Your task to perform on an android device: Go to display settings Image 0: 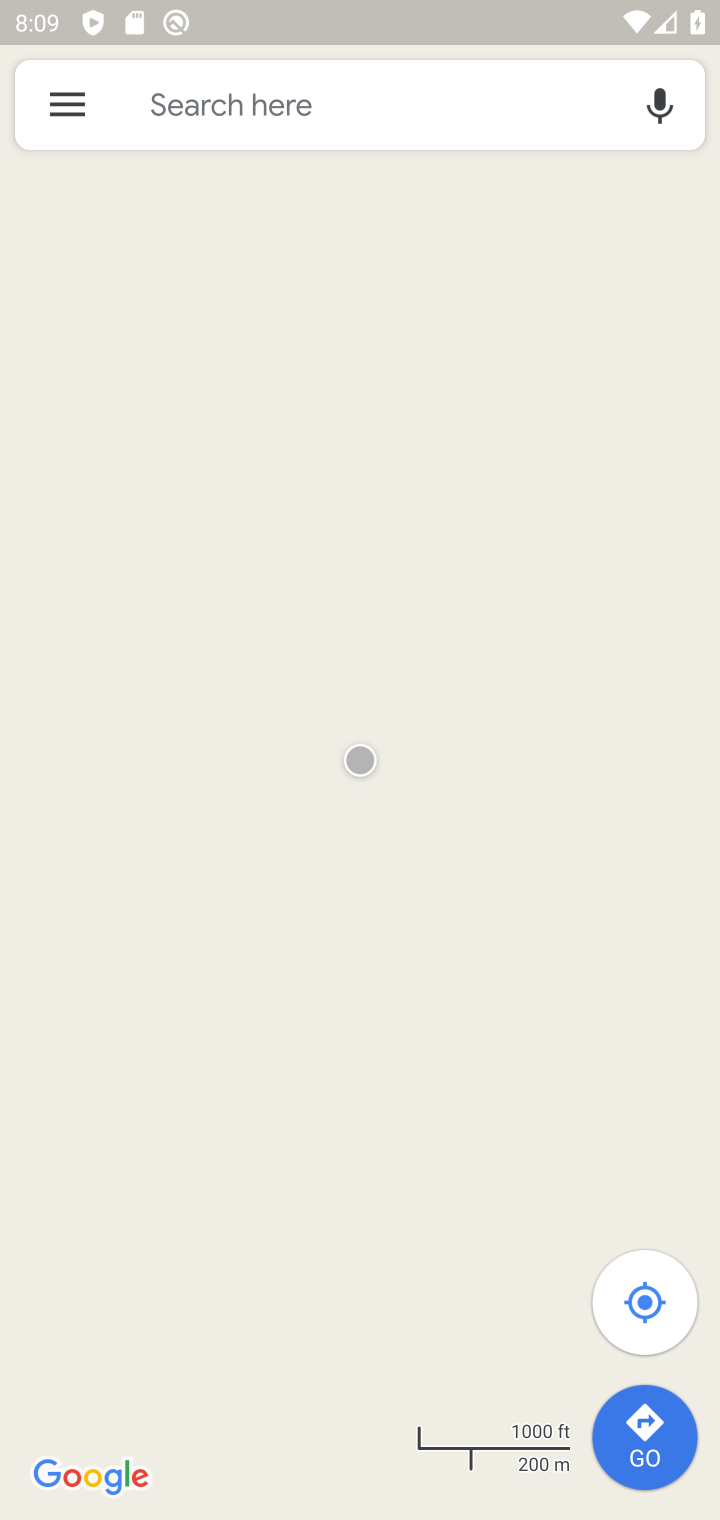
Step 0: press home button
Your task to perform on an android device: Go to display settings Image 1: 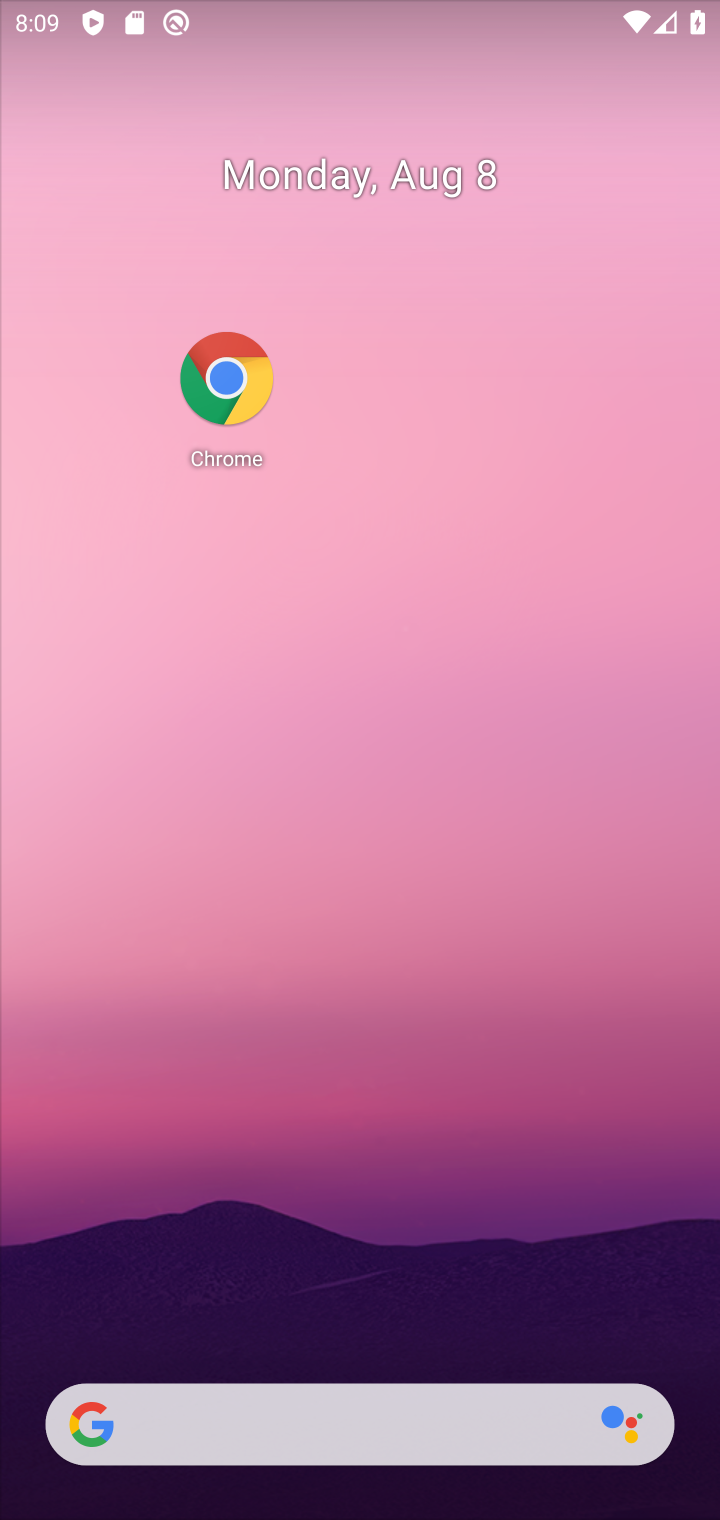
Step 1: drag from (310, 1033) to (126, 4)
Your task to perform on an android device: Go to display settings Image 2: 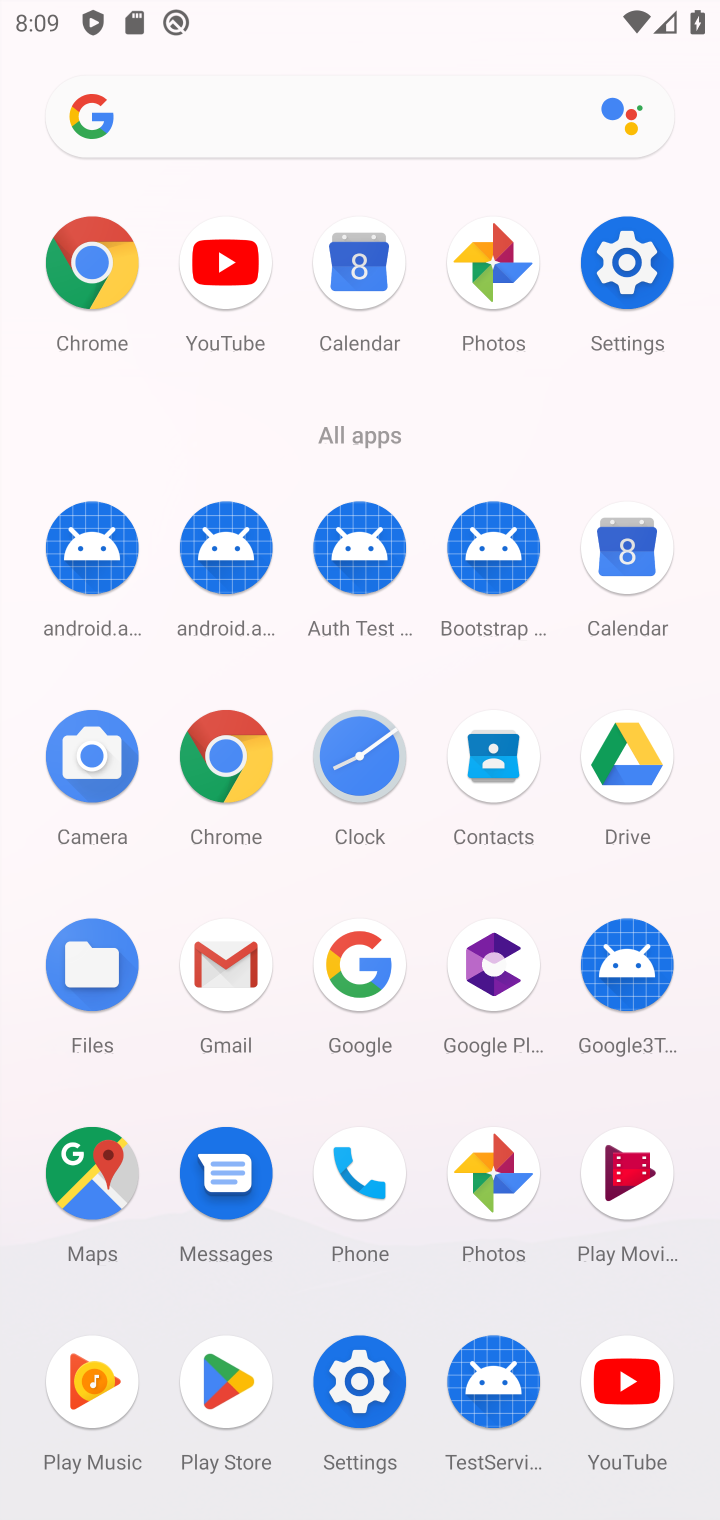
Step 2: click (632, 274)
Your task to perform on an android device: Go to display settings Image 3: 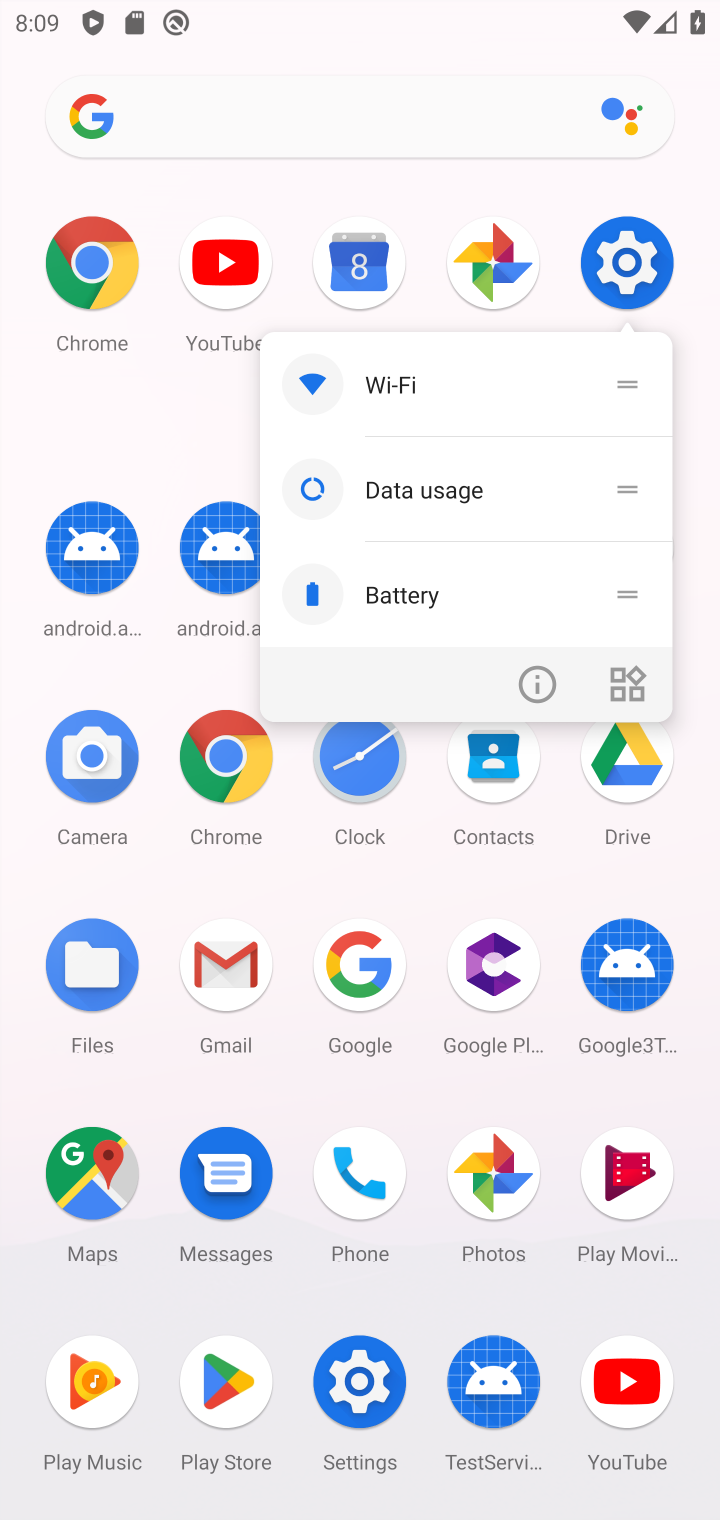
Step 3: click (632, 274)
Your task to perform on an android device: Go to display settings Image 4: 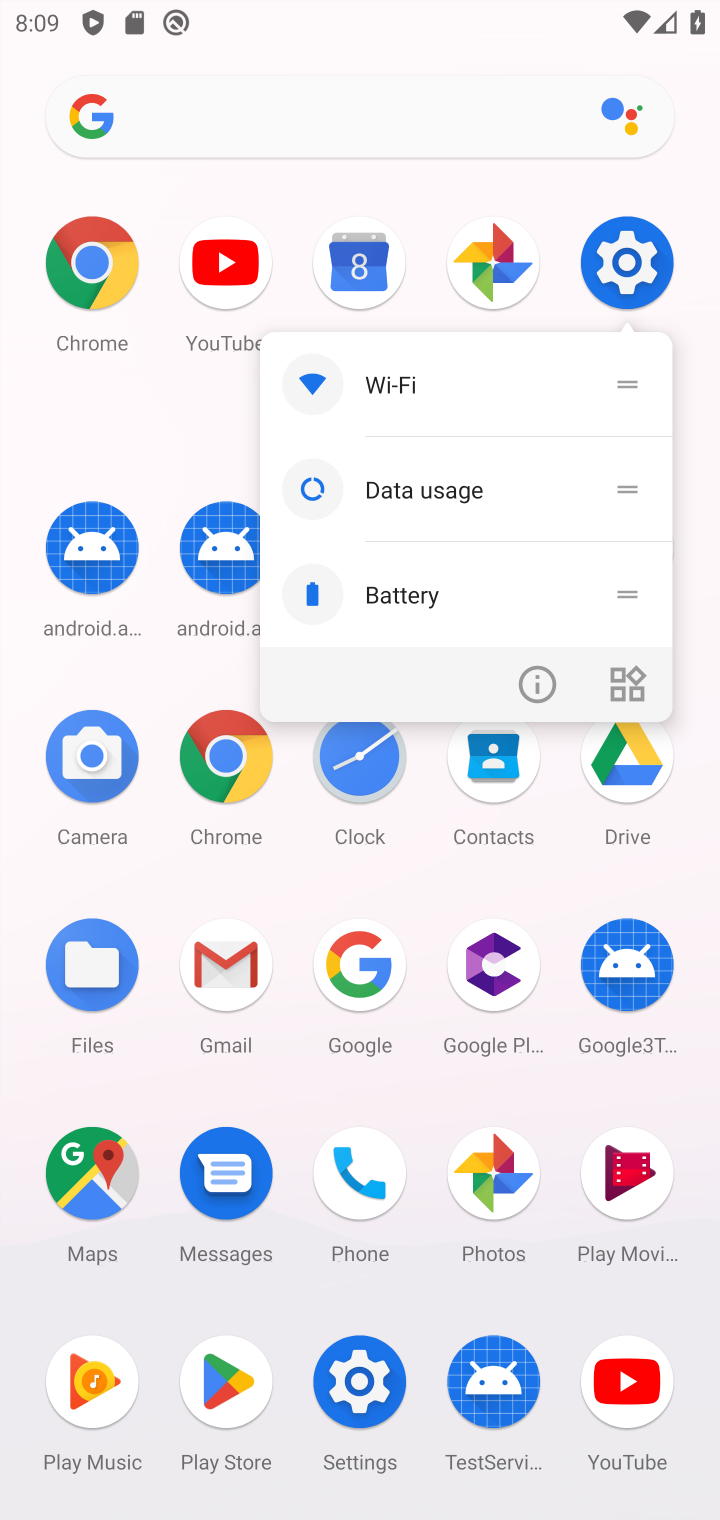
Step 4: click (630, 268)
Your task to perform on an android device: Go to display settings Image 5: 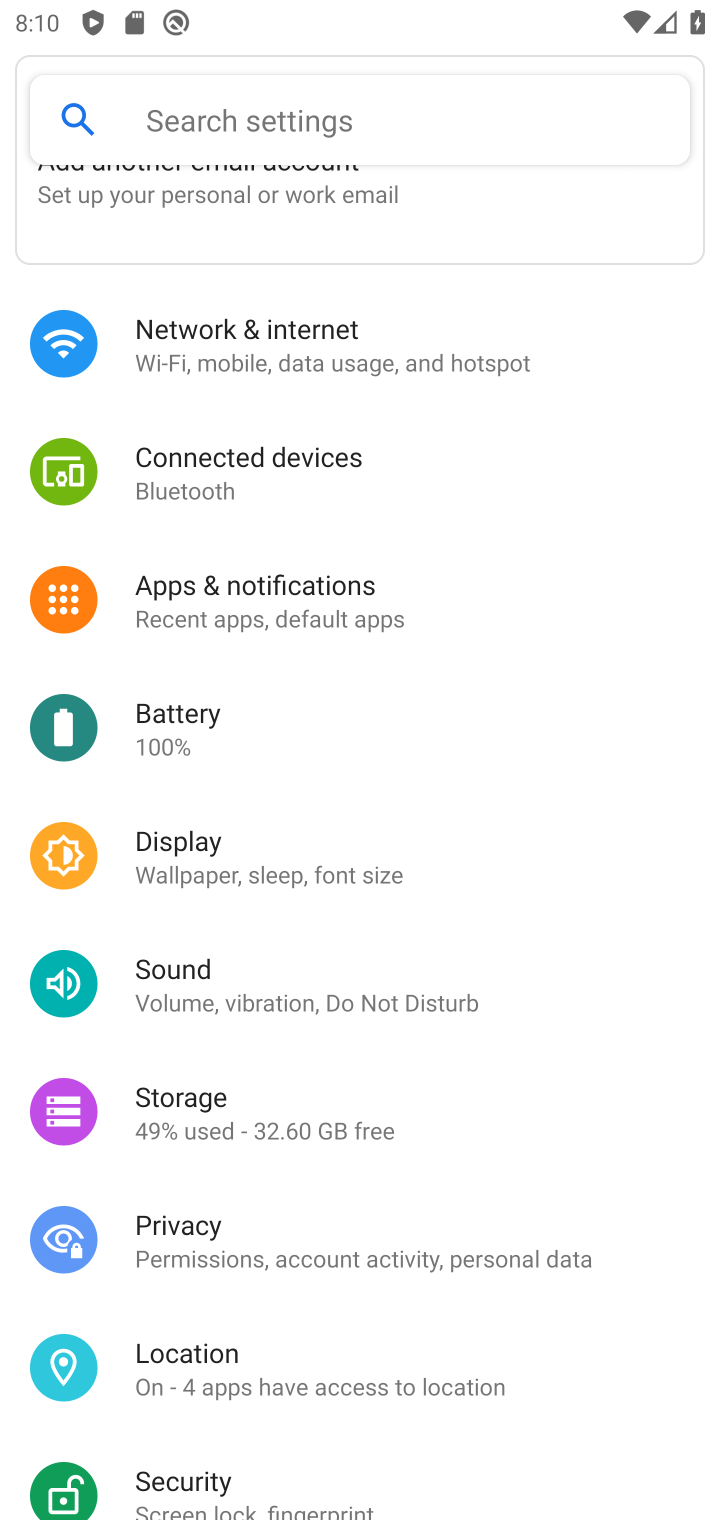
Step 5: click (293, 858)
Your task to perform on an android device: Go to display settings Image 6: 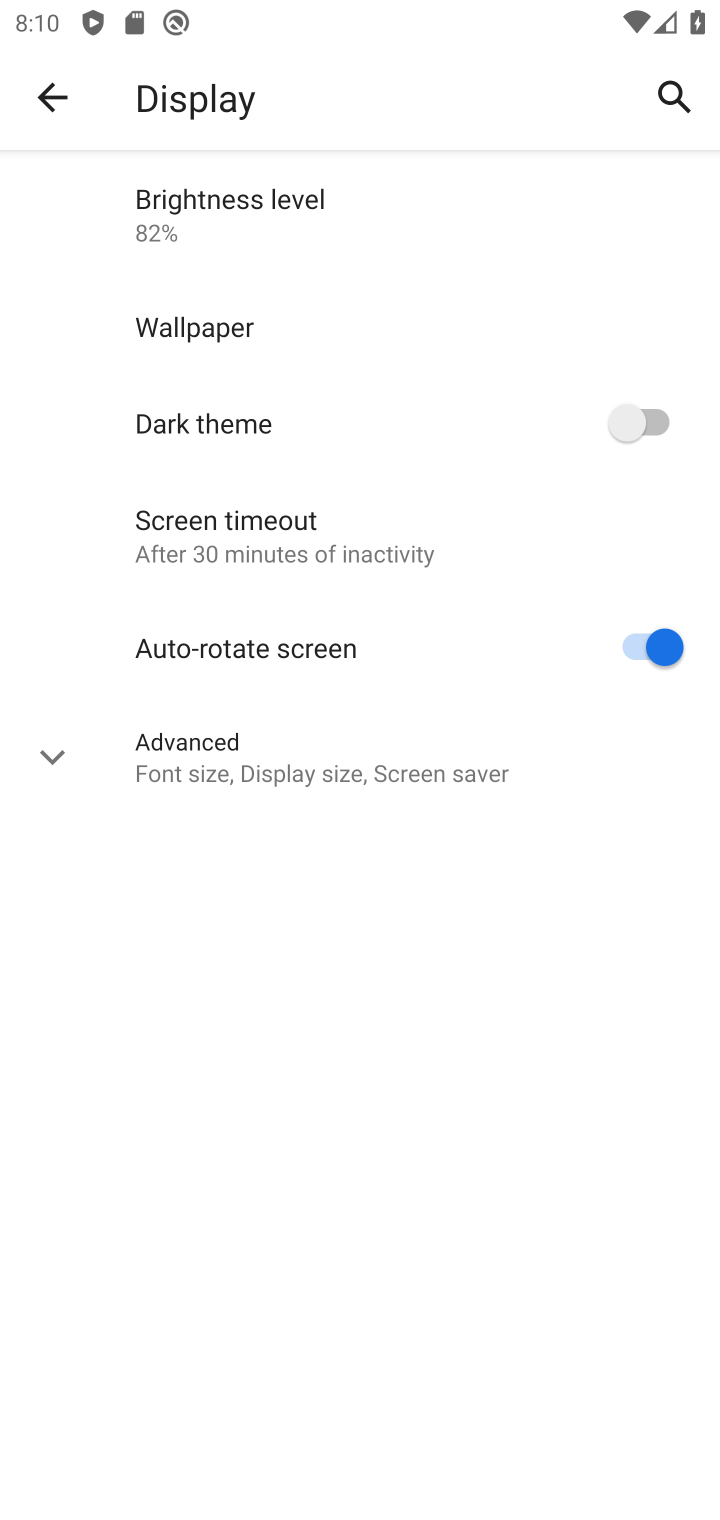
Step 6: task complete